Your task to perform on an android device: Go to Reddit.com Image 0: 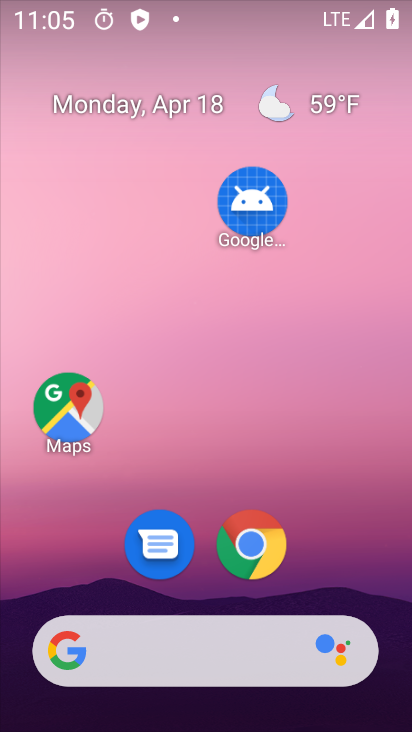
Step 0: drag from (306, 511) to (330, 175)
Your task to perform on an android device: Go to Reddit.com Image 1: 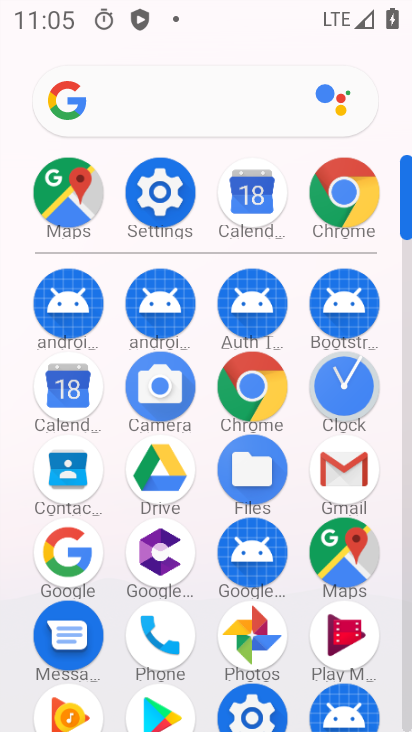
Step 1: click (358, 186)
Your task to perform on an android device: Go to Reddit.com Image 2: 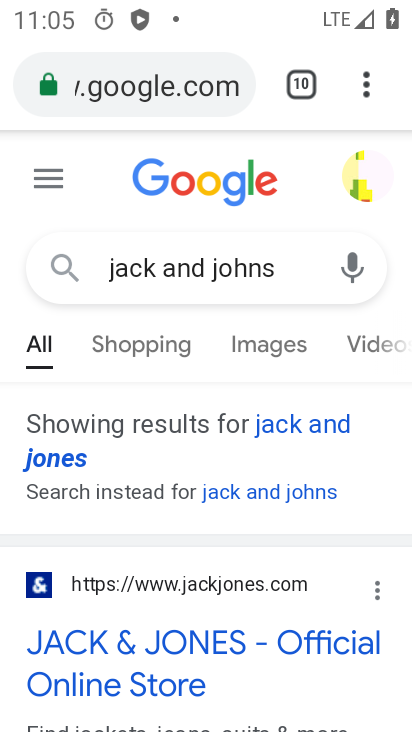
Step 2: click (368, 82)
Your task to perform on an android device: Go to Reddit.com Image 3: 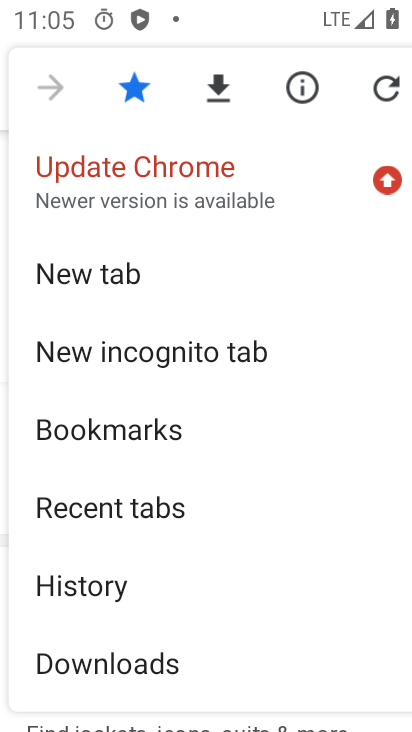
Step 3: click (154, 276)
Your task to perform on an android device: Go to Reddit.com Image 4: 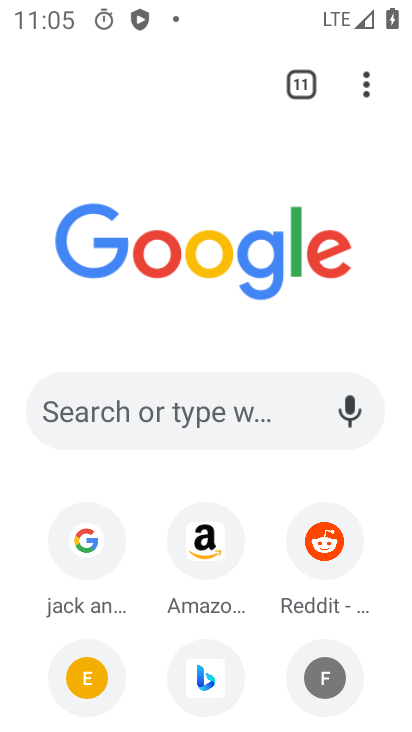
Step 4: click (189, 395)
Your task to perform on an android device: Go to Reddit.com Image 5: 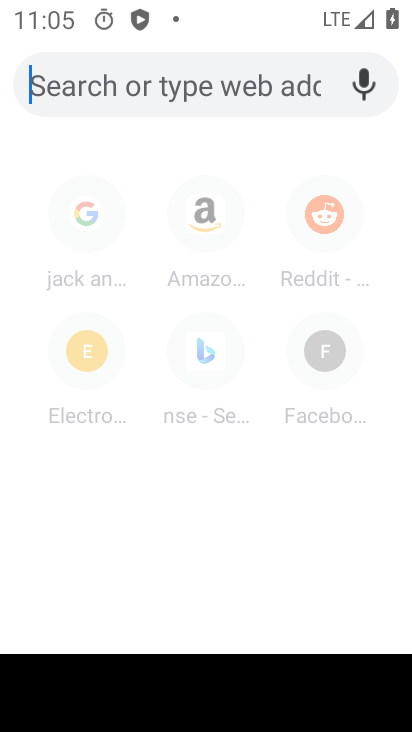
Step 5: type " Reddit.com"
Your task to perform on an android device: Go to Reddit.com Image 6: 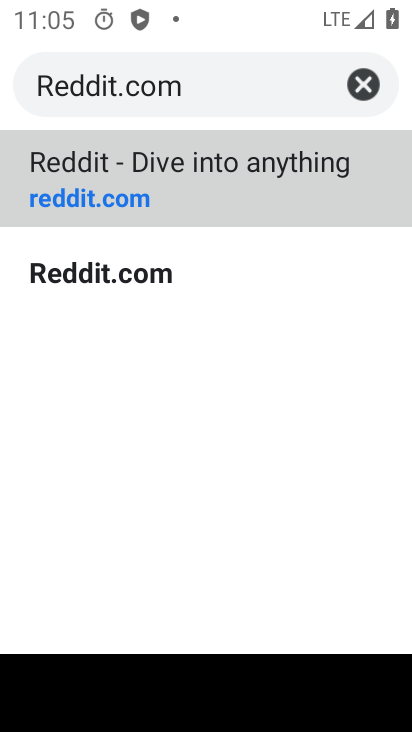
Step 6: click (180, 198)
Your task to perform on an android device: Go to Reddit.com Image 7: 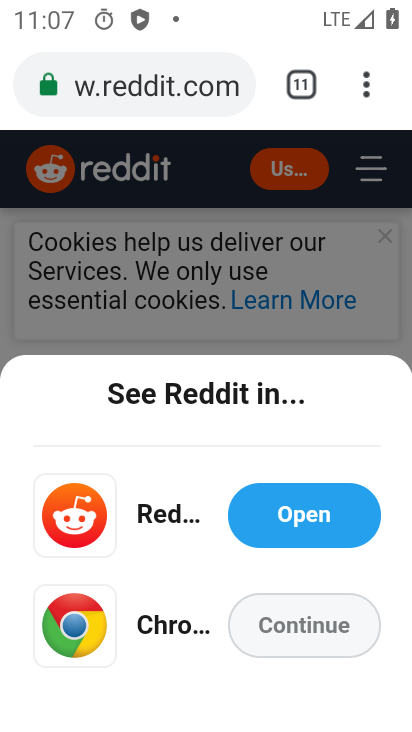
Step 7: task complete